Your task to perform on an android device: open app "Speedtest by Ookla" (install if not already installed) Image 0: 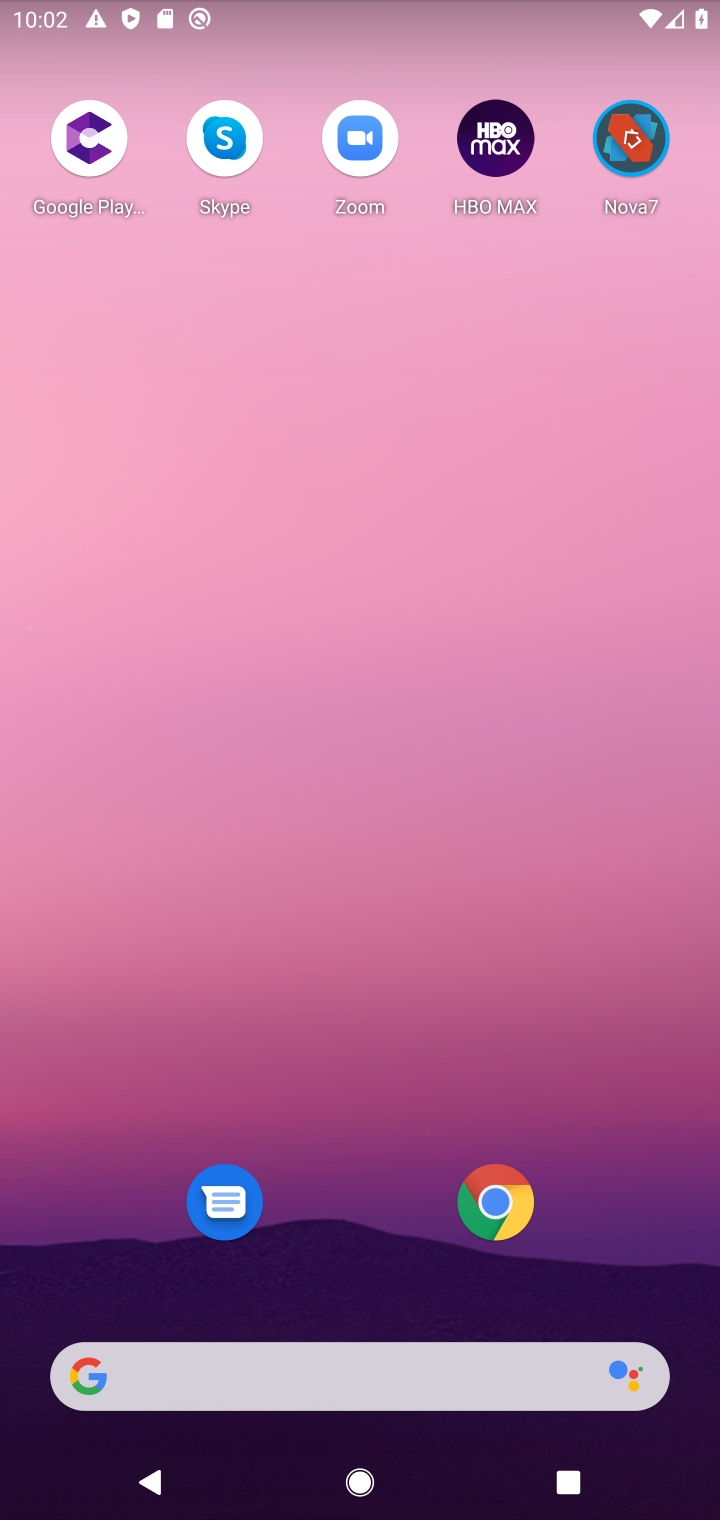
Step 0: drag from (354, 1286) to (368, 354)
Your task to perform on an android device: open app "Speedtest by Ookla" (install if not already installed) Image 1: 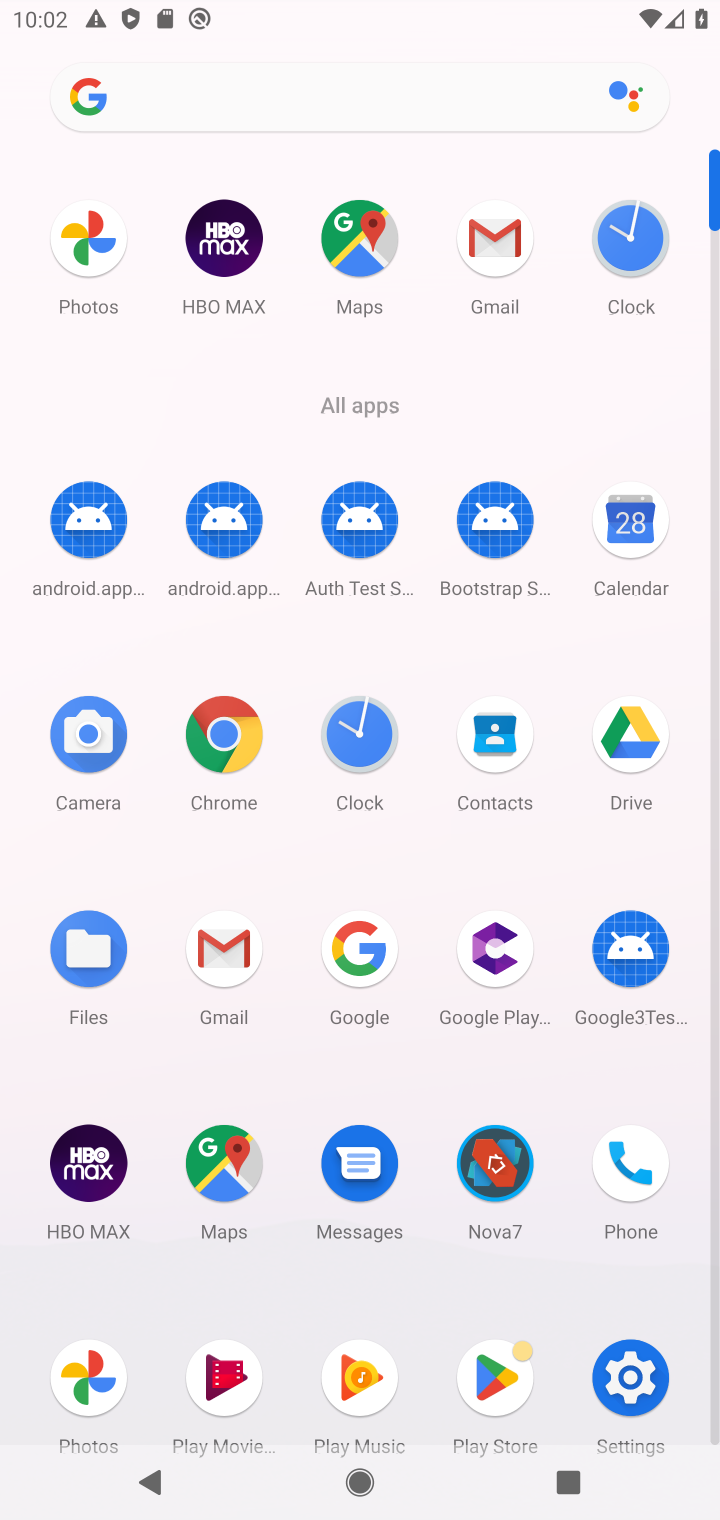
Step 1: type "speed by ookla"
Your task to perform on an android device: open app "Speedtest by Ookla" (install if not already installed) Image 2: 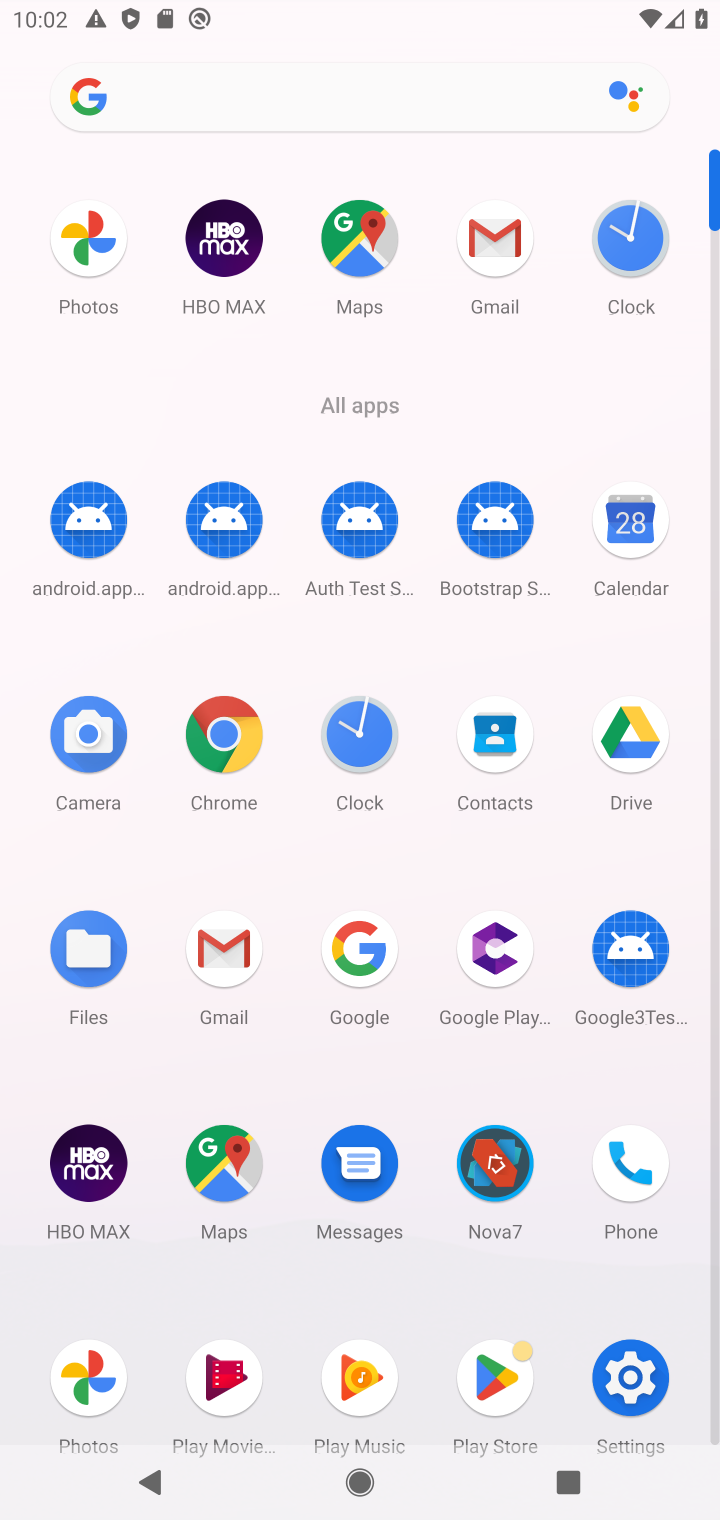
Step 2: click (314, 102)
Your task to perform on an android device: open app "Speedtest by Ookla" (install if not already installed) Image 3: 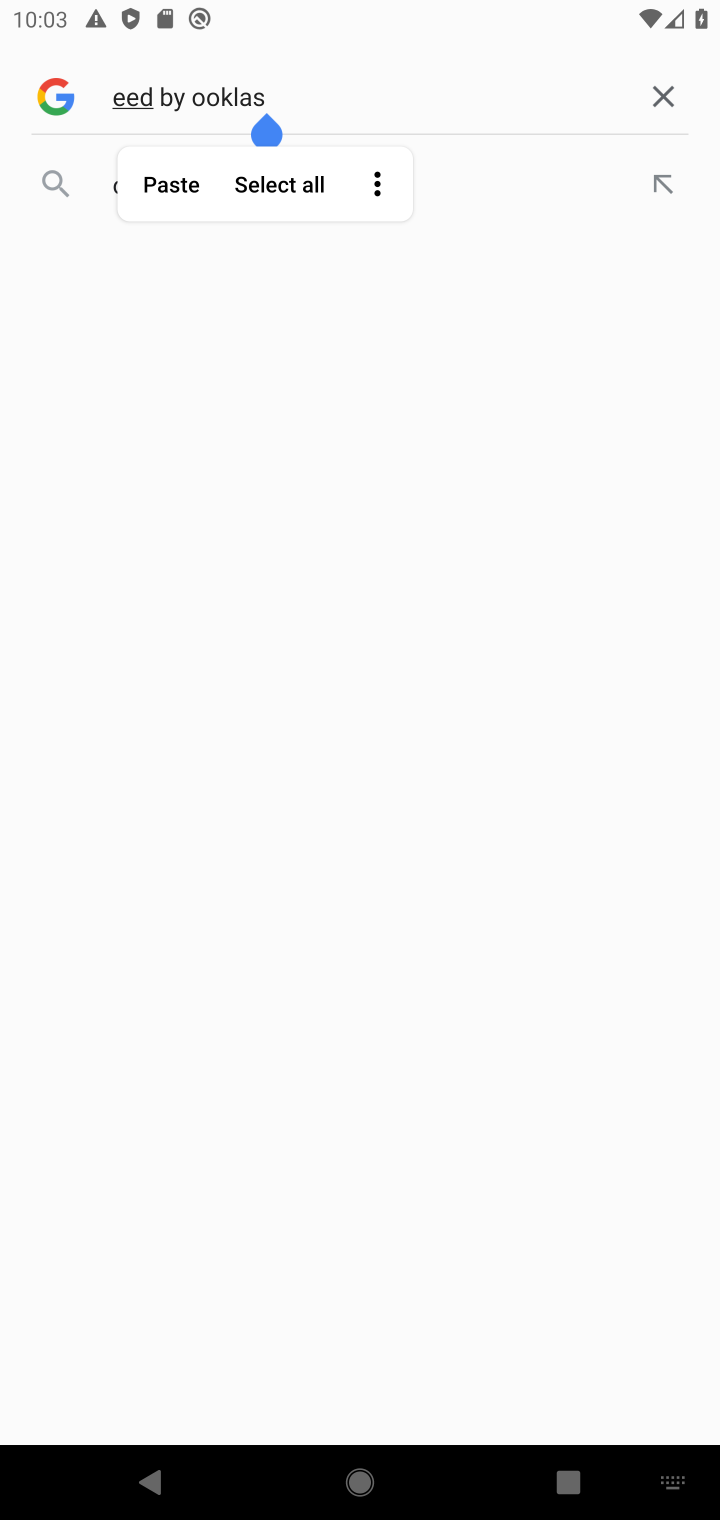
Step 3: click (540, 170)
Your task to perform on an android device: open app "Speedtest by Ookla" (install if not already installed) Image 4: 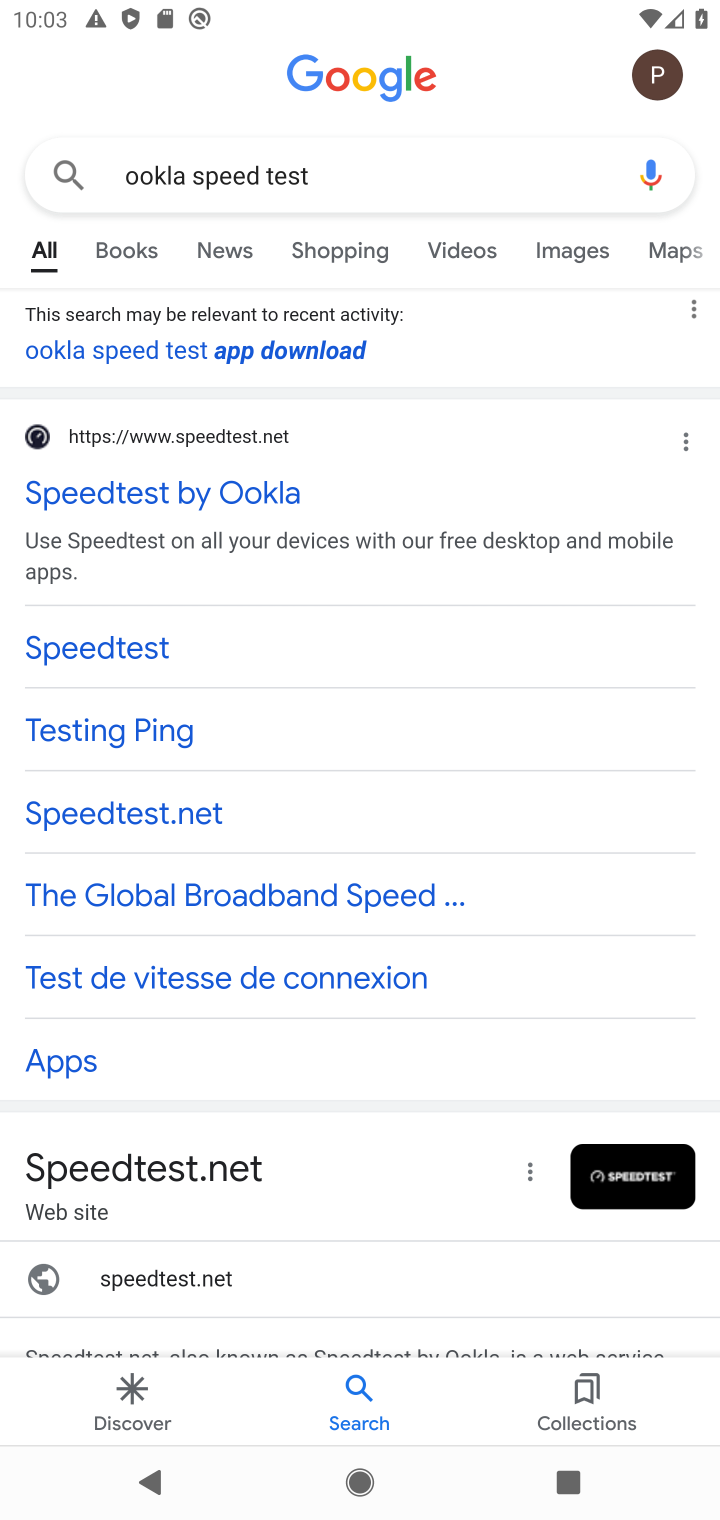
Step 4: task complete